Your task to perform on an android device: Is it going to rain today? Image 0: 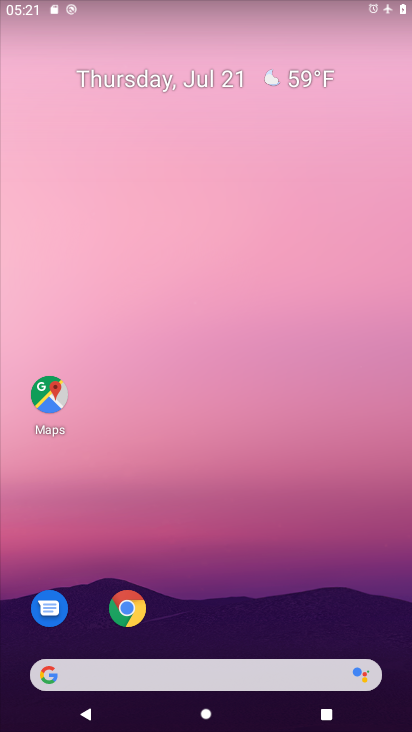
Step 0: drag from (335, 663) to (365, 207)
Your task to perform on an android device: Is it going to rain today? Image 1: 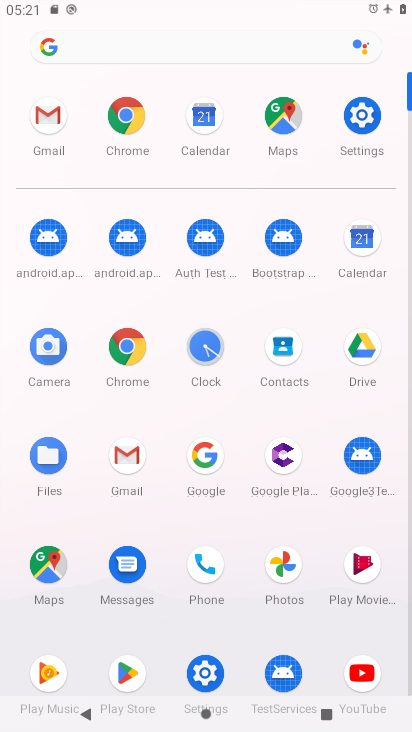
Step 1: click (134, 351)
Your task to perform on an android device: Is it going to rain today? Image 2: 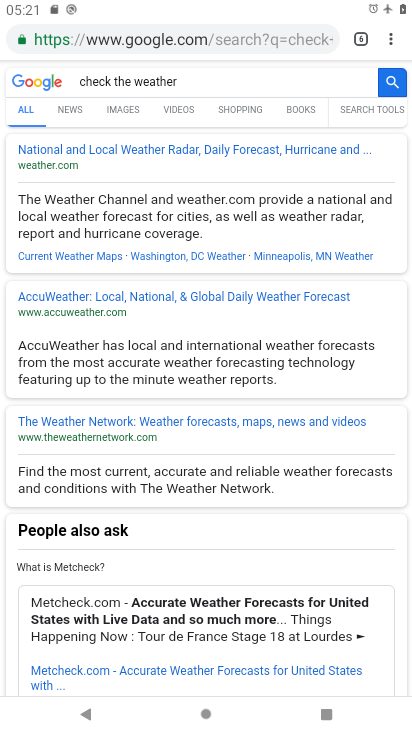
Step 2: click (283, 29)
Your task to perform on an android device: Is it going to rain today? Image 3: 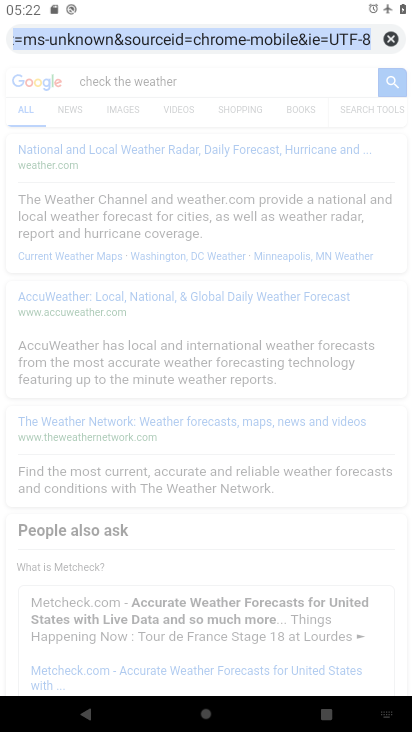
Step 3: type "going to rain today"
Your task to perform on an android device: Is it going to rain today? Image 4: 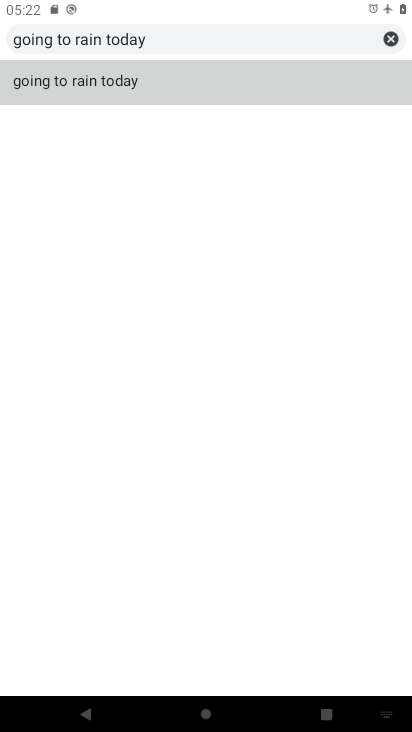
Step 4: click (149, 86)
Your task to perform on an android device: Is it going to rain today? Image 5: 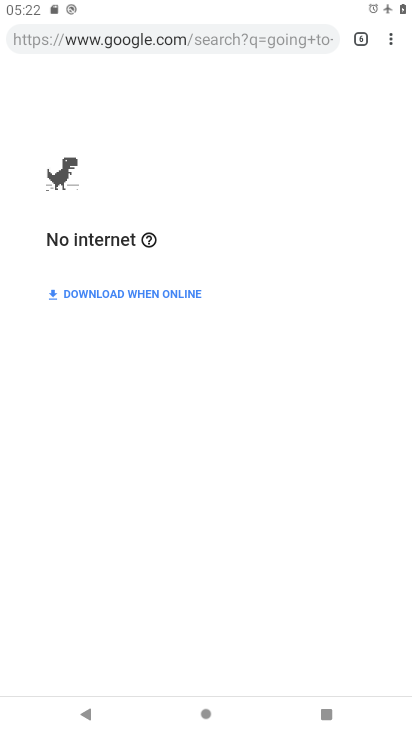
Step 5: task complete